Your task to perform on an android device: Check the news Image 0: 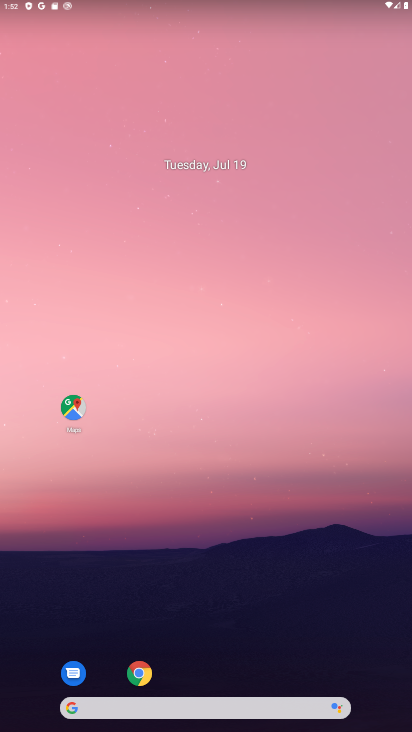
Step 0: click (138, 676)
Your task to perform on an android device: Check the news Image 1: 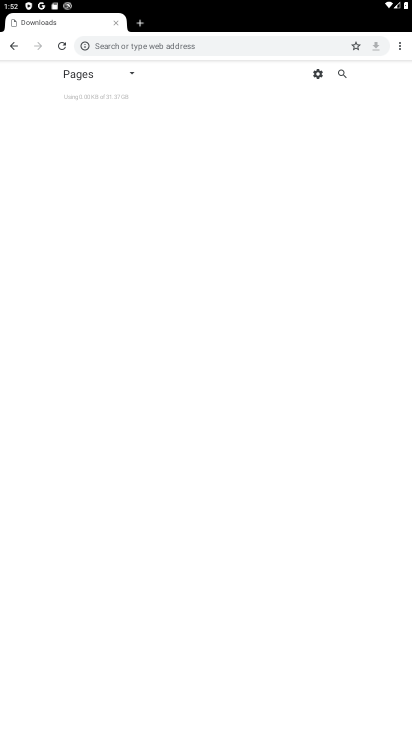
Step 1: click (236, 44)
Your task to perform on an android device: Check the news Image 2: 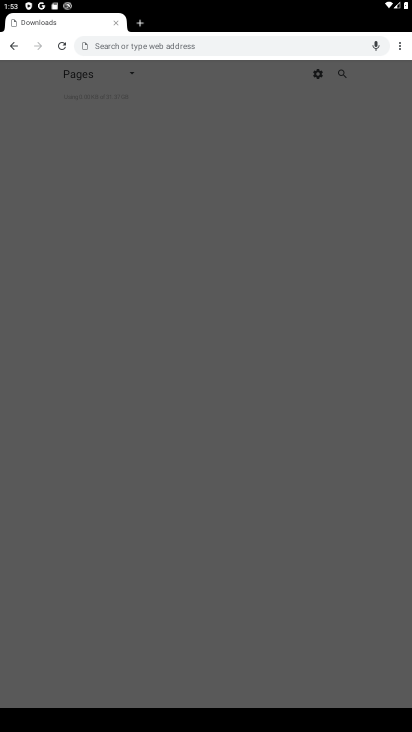
Step 2: type "Check the news"
Your task to perform on an android device: Check the news Image 3: 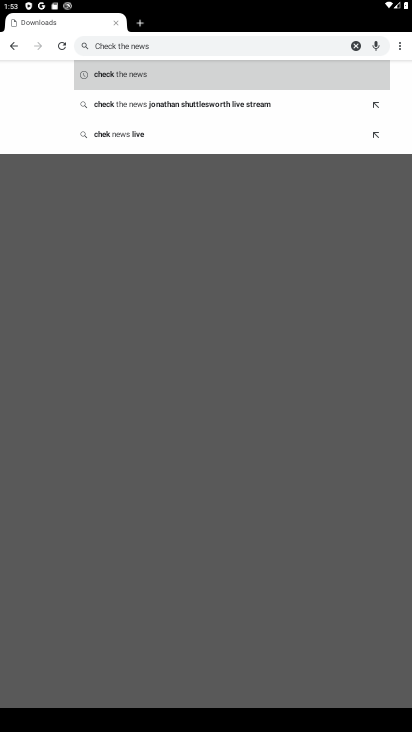
Step 3: click (145, 73)
Your task to perform on an android device: Check the news Image 4: 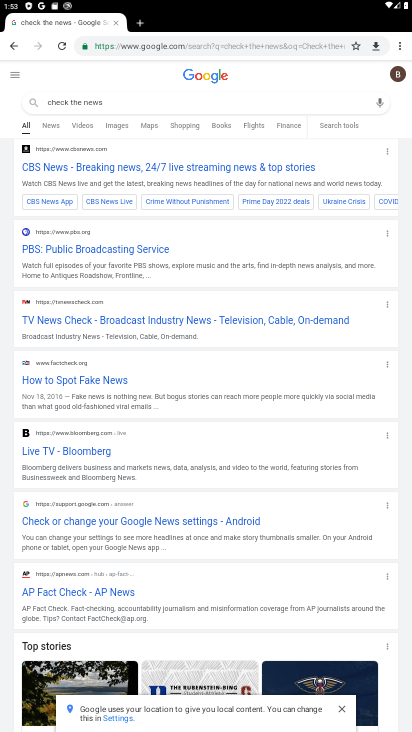
Step 4: click (200, 164)
Your task to perform on an android device: Check the news Image 5: 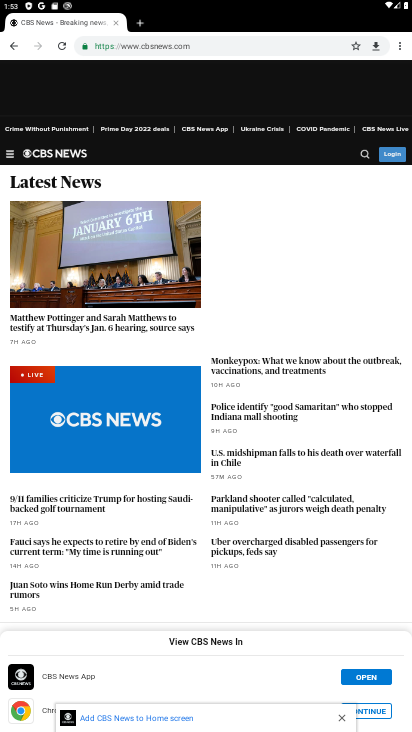
Step 5: task complete